Your task to perform on an android device: Go to accessibility settings Image 0: 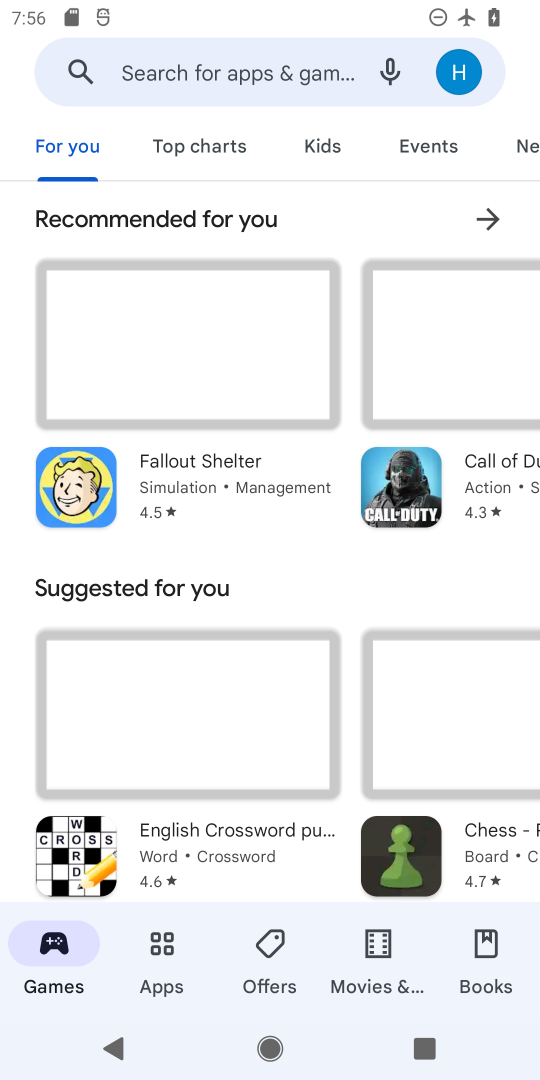
Step 0: press home button
Your task to perform on an android device: Go to accessibility settings Image 1: 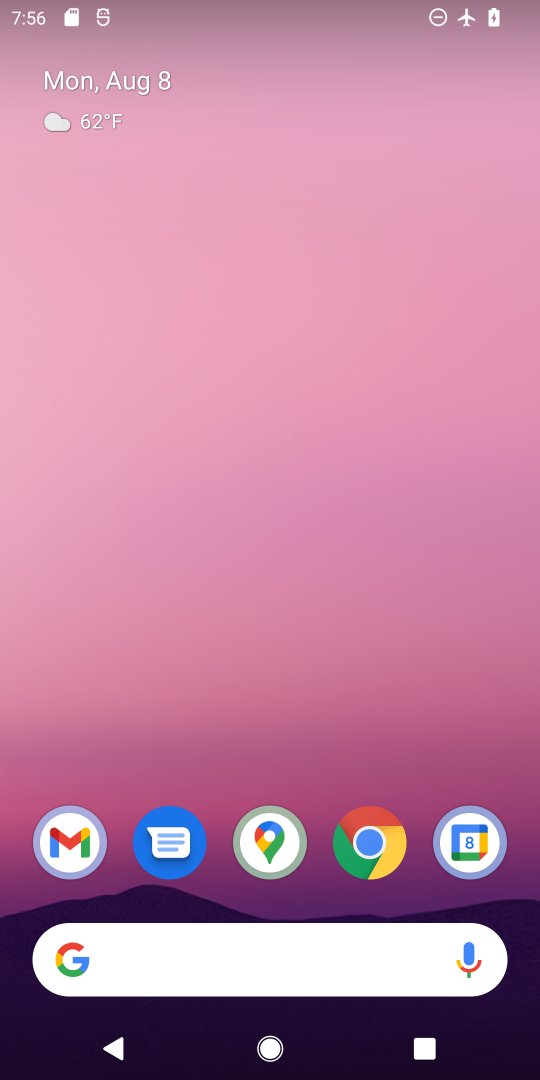
Step 1: drag from (269, 909) to (264, 130)
Your task to perform on an android device: Go to accessibility settings Image 2: 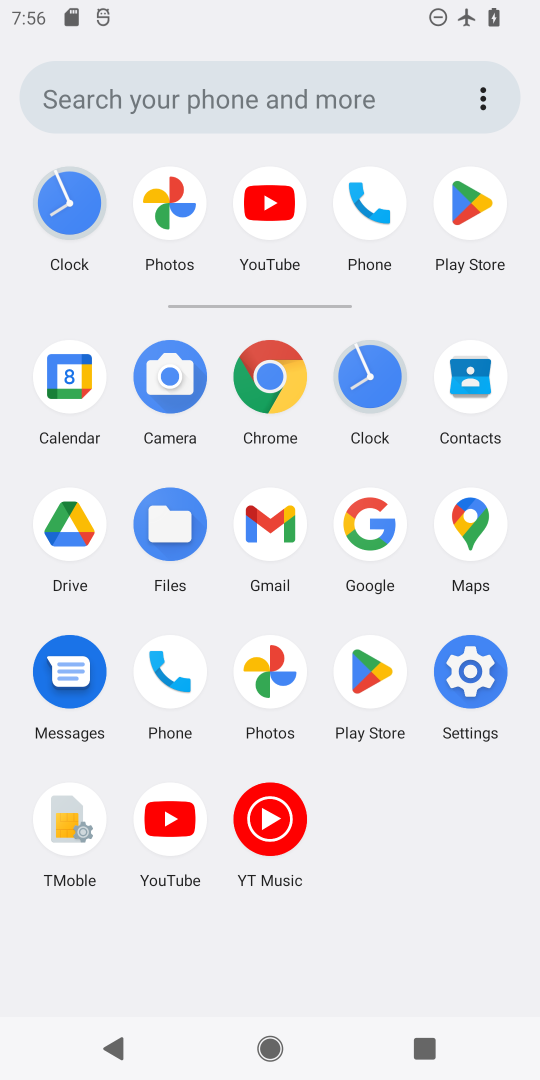
Step 2: click (491, 686)
Your task to perform on an android device: Go to accessibility settings Image 3: 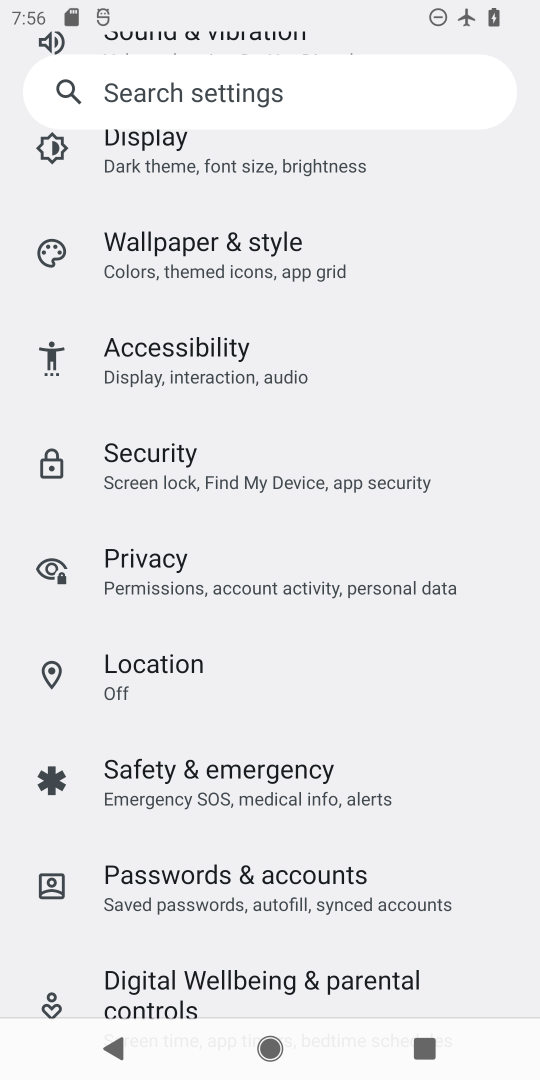
Step 3: click (112, 399)
Your task to perform on an android device: Go to accessibility settings Image 4: 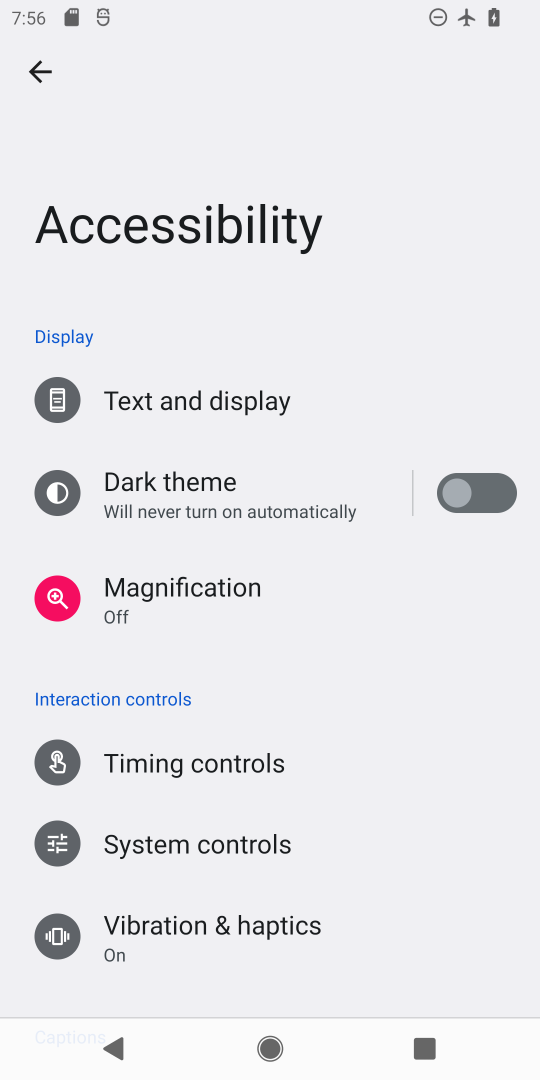
Step 4: task complete